Your task to perform on an android device: Open my contact list Image 0: 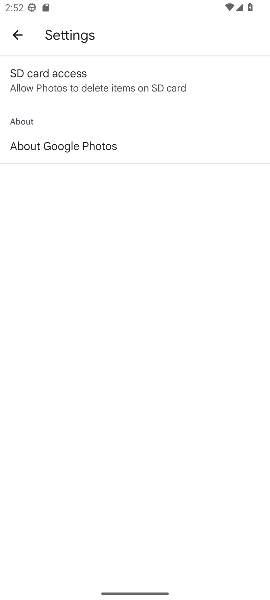
Step 0: press home button
Your task to perform on an android device: Open my contact list Image 1: 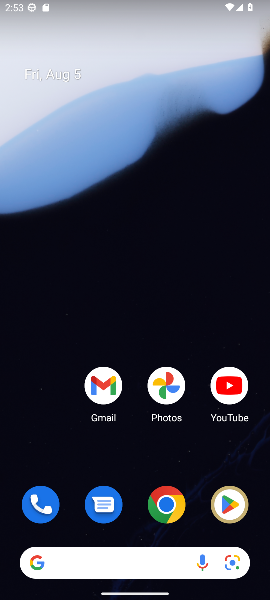
Step 1: drag from (27, 567) to (190, 128)
Your task to perform on an android device: Open my contact list Image 2: 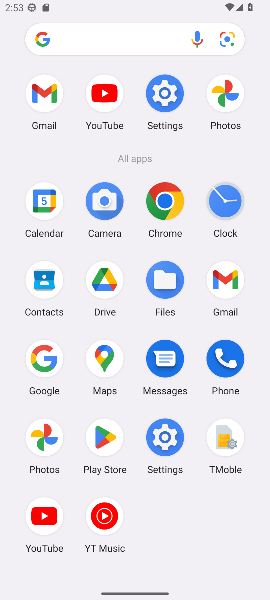
Step 2: click (43, 296)
Your task to perform on an android device: Open my contact list Image 3: 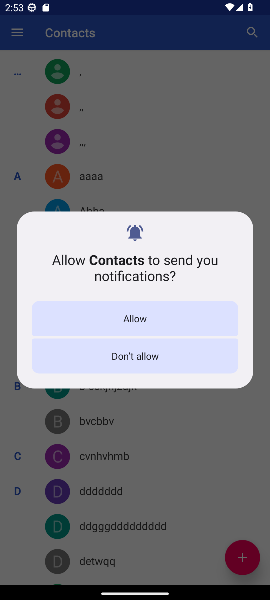
Step 3: click (149, 308)
Your task to perform on an android device: Open my contact list Image 4: 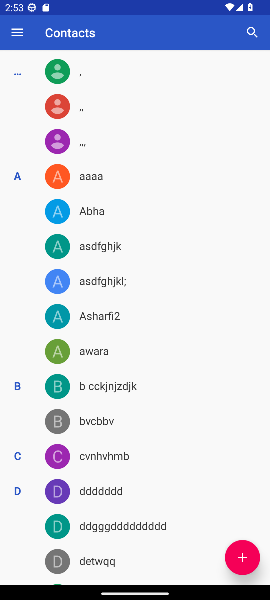
Step 4: task complete